Your task to perform on an android device: Clear the shopping cart on walmart. Add "usb-b" to the cart on walmart Image 0: 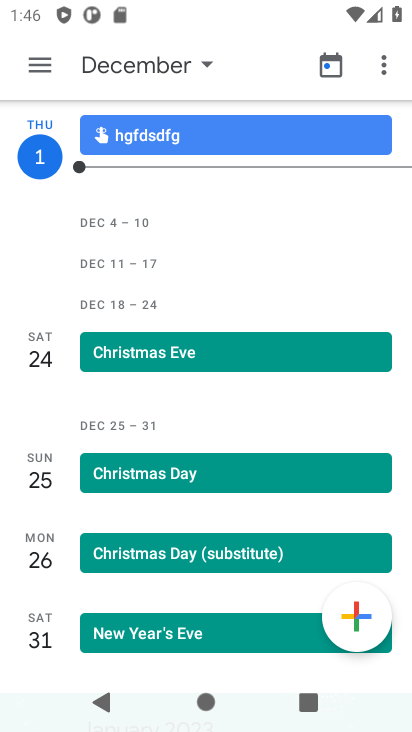
Step 0: press home button
Your task to perform on an android device: Clear the shopping cart on walmart. Add "usb-b" to the cart on walmart Image 1: 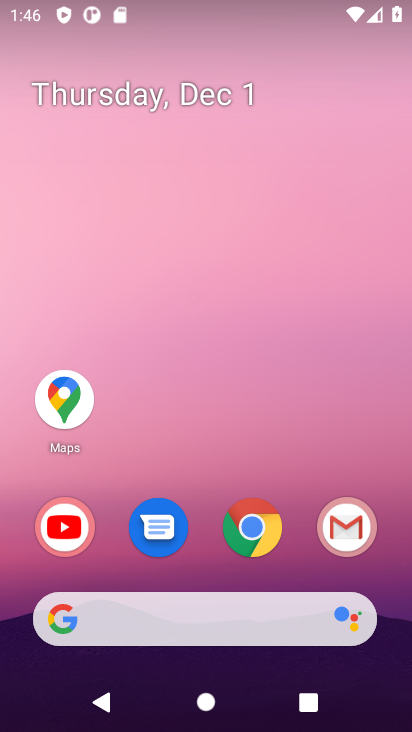
Step 1: click (246, 531)
Your task to perform on an android device: Clear the shopping cart on walmart. Add "usb-b" to the cart on walmart Image 2: 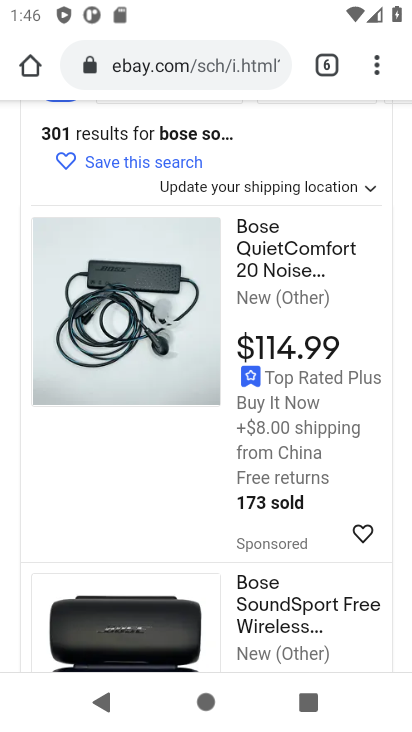
Step 2: click (185, 65)
Your task to perform on an android device: Clear the shopping cart on walmart. Add "usb-b" to the cart on walmart Image 3: 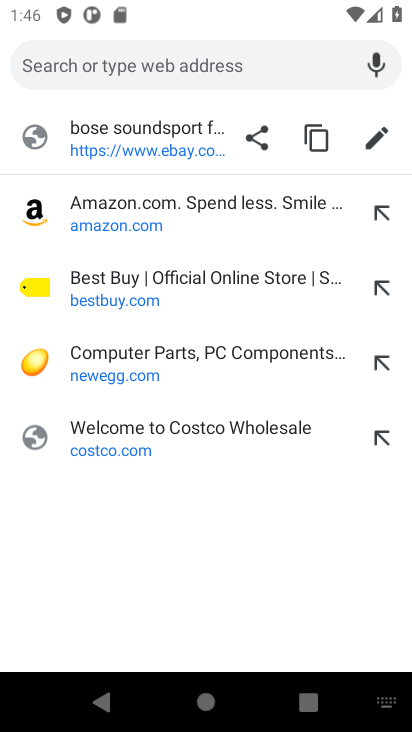
Step 3: type "walmart.com"
Your task to perform on an android device: Clear the shopping cart on walmart. Add "usb-b" to the cart on walmart Image 4: 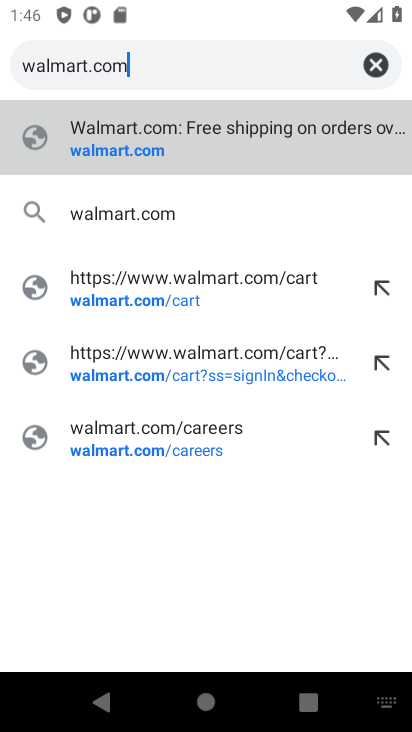
Step 4: click (134, 153)
Your task to perform on an android device: Clear the shopping cart on walmart. Add "usb-b" to the cart on walmart Image 5: 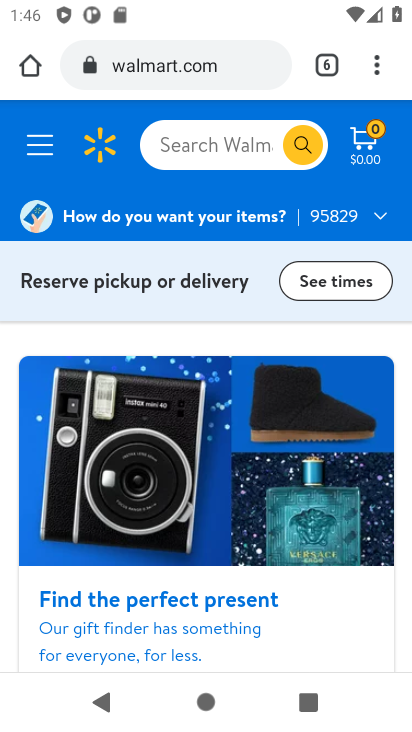
Step 5: click (368, 138)
Your task to perform on an android device: Clear the shopping cart on walmart. Add "usb-b" to the cart on walmart Image 6: 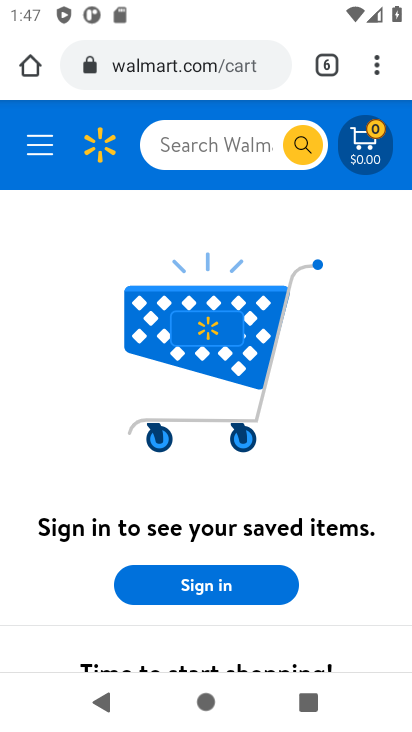
Step 6: click (230, 151)
Your task to perform on an android device: Clear the shopping cart on walmart. Add "usb-b" to the cart on walmart Image 7: 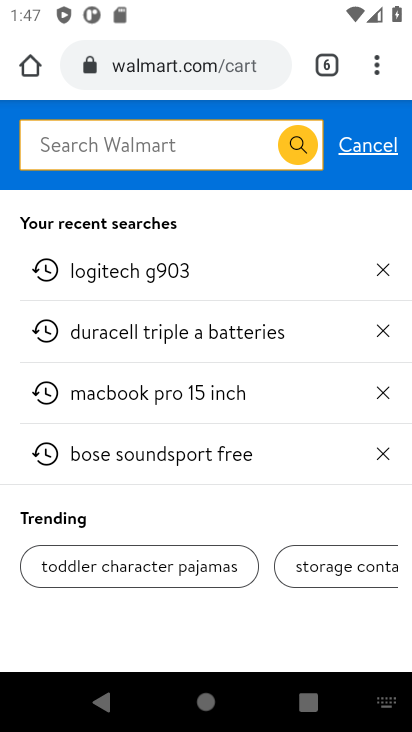
Step 7: type "usb-b"
Your task to perform on an android device: Clear the shopping cart on walmart. Add "usb-b" to the cart on walmart Image 8: 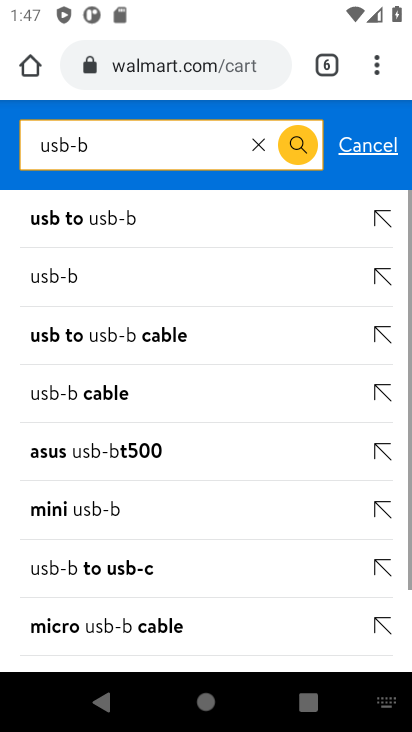
Step 8: click (60, 286)
Your task to perform on an android device: Clear the shopping cart on walmart. Add "usb-b" to the cart on walmart Image 9: 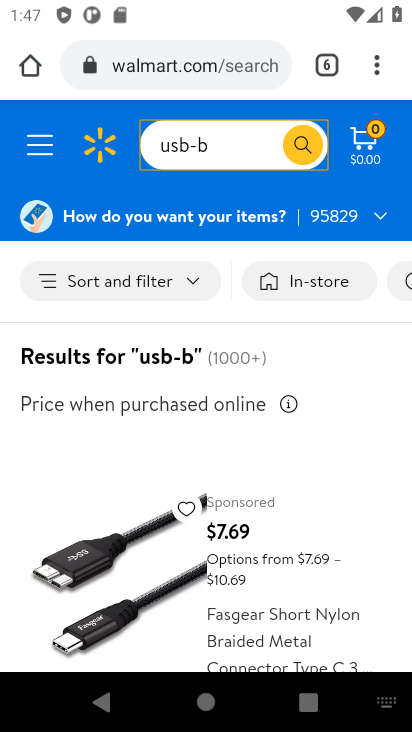
Step 9: drag from (272, 619) to (291, 288)
Your task to perform on an android device: Clear the shopping cart on walmart. Add "usb-b" to the cart on walmart Image 10: 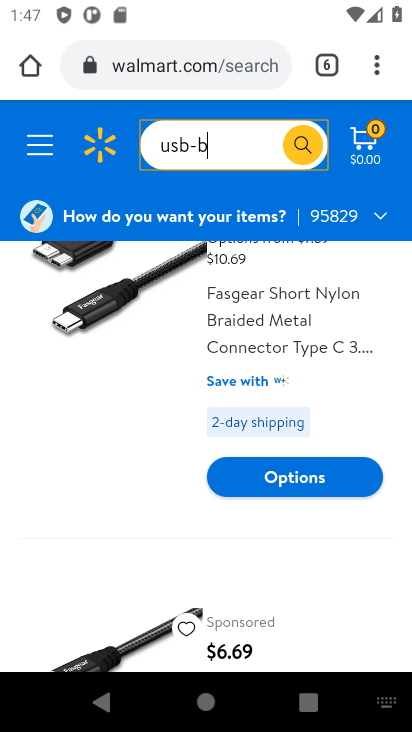
Step 10: drag from (277, 349) to (278, 421)
Your task to perform on an android device: Clear the shopping cart on walmart. Add "usb-b" to the cart on walmart Image 11: 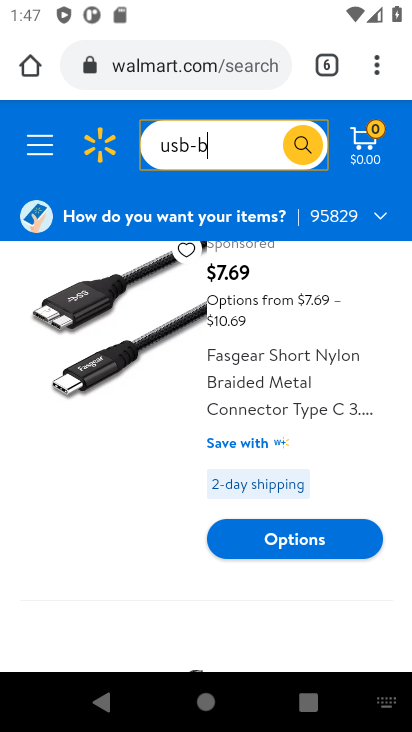
Step 11: drag from (289, 355) to (280, 501)
Your task to perform on an android device: Clear the shopping cart on walmart. Add "usb-b" to the cart on walmart Image 12: 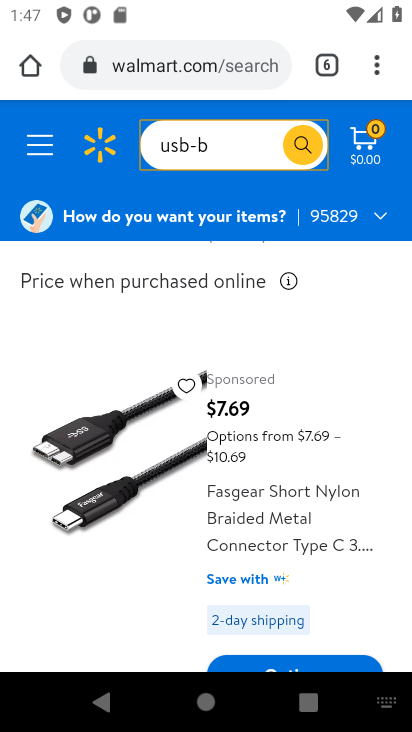
Step 12: drag from (280, 501) to (262, 356)
Your task to perform on an android device: Clear the shopping cart on walmart. Add "usb-b" to the cart on walmart Image 13: 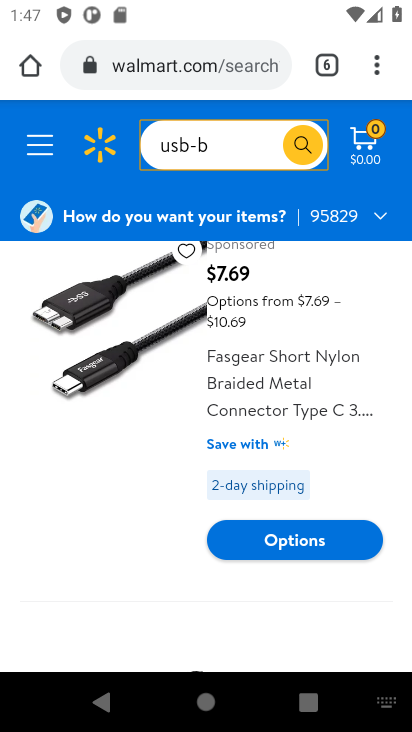
Step 13: drag from (243, 577) to (239, 350)
Your task to perform on an android device: Clear the shopping cart on walmart. Add "usb-b" to the cart on walmart Image 14: 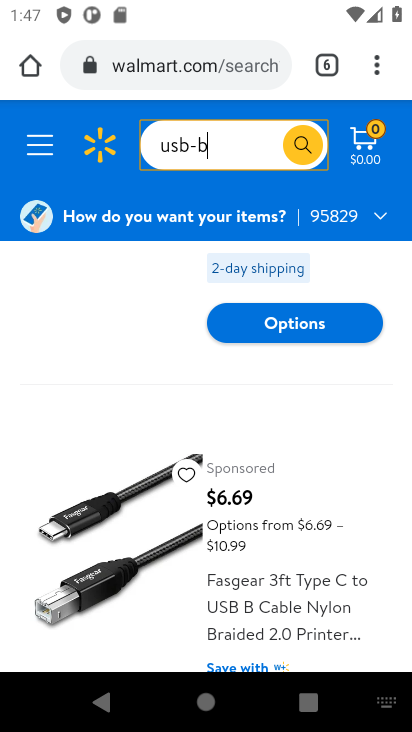
Step 14: drag from (227, 538) to (222, 381)
Your task to perform on an android device: Clear the shopping cart on walmart. Add "usb-b" to the cart on walmart Image 15: 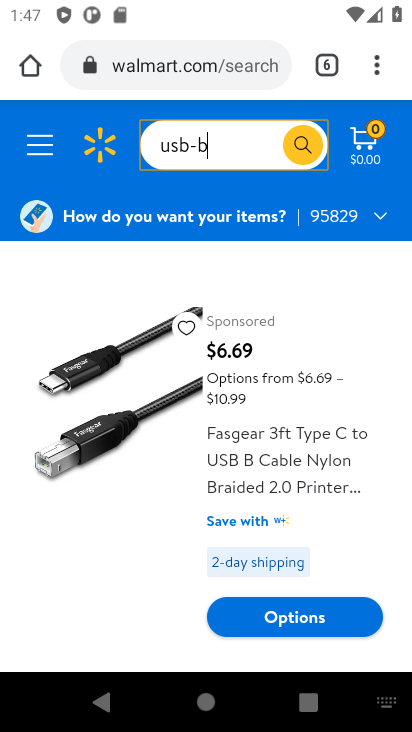
Step 15: click (304, 490)
Your task to perform on an android device: Clear the shopping cart on walmart. Add "usb-b" to the cart on walmart Image 16: 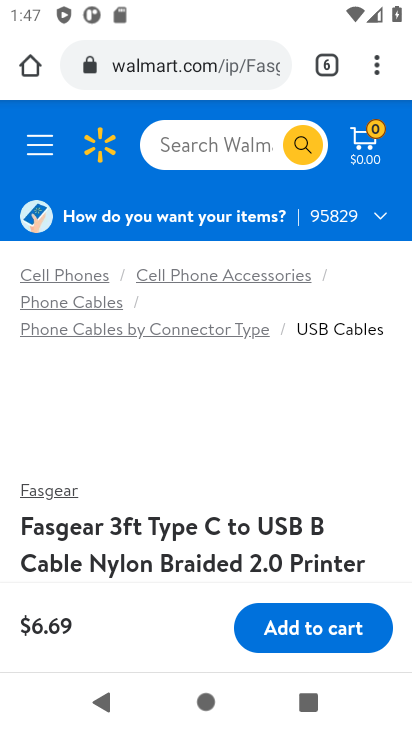
Step 16: click (310, 630)
Your task to perform on an android device: Clear the shopping cart on walmart. Add "usb-b" to the cart on walmart Image 17: 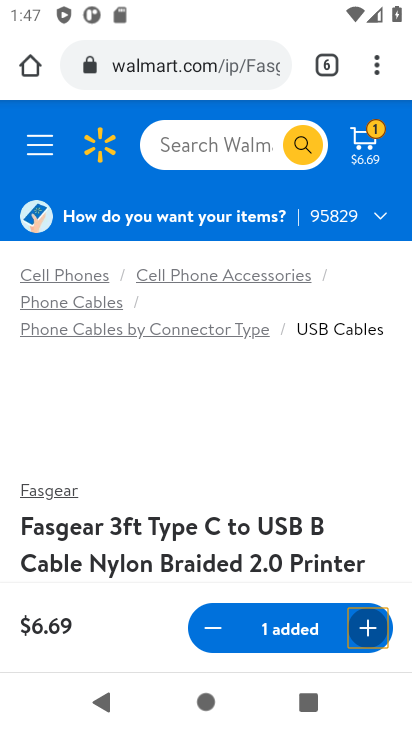
Step 17: task complete